Your task to perform on an android device: Search for vegetarian restaurants on Maps Image 0: 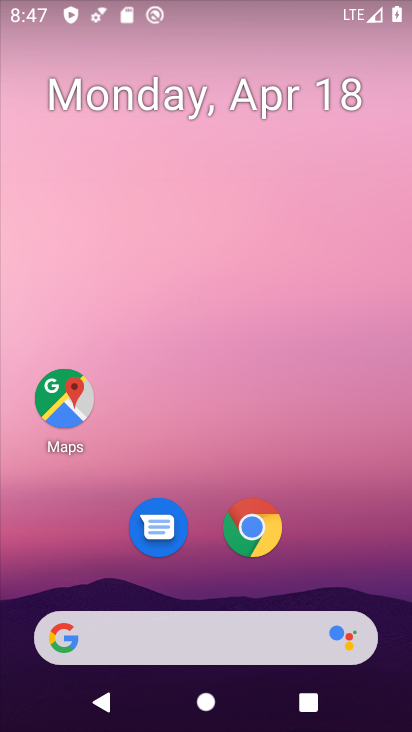
Step 0: drag from (380, 584) to (312, 34)
Your task to perform on an android device: Search for vegetarian restaurants on Maps Image 1: 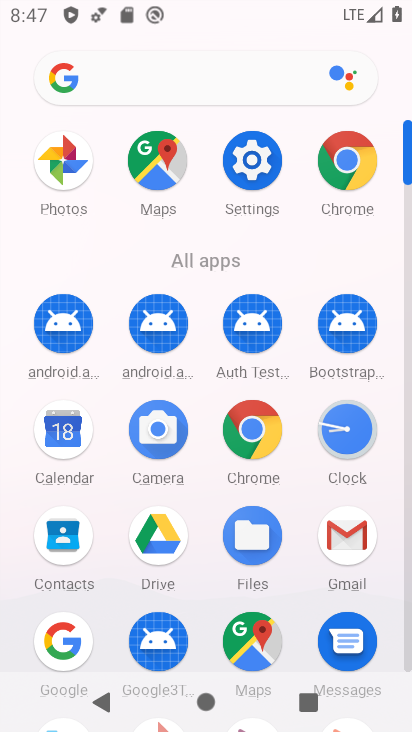
Step 1: click (248, 637)
Your task to perform on an android device: Search for vegetarian restaurants on Maps Image 2: 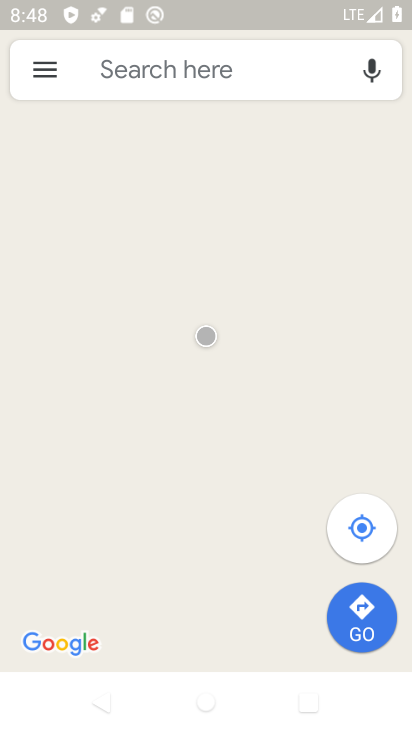
Step 2: click (271, 75)
Your task to perform on an android device: Search for vegetarian restaurants on Maps Image 3: 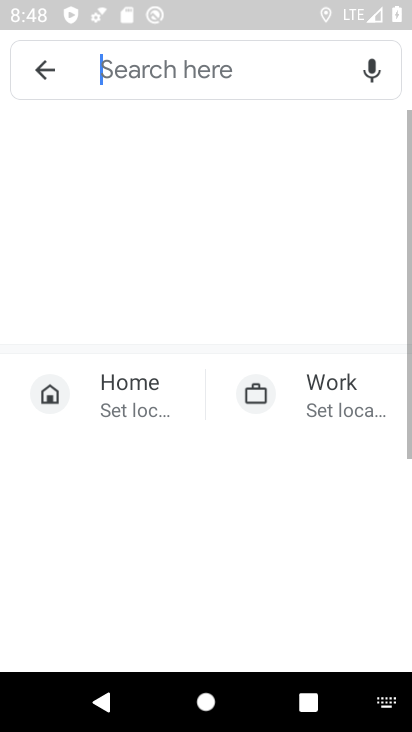
Step 3: type " vegetarian restaurants "
Your task to perform on an android device: Search for vegetarian restaurants on Maps Image 4: 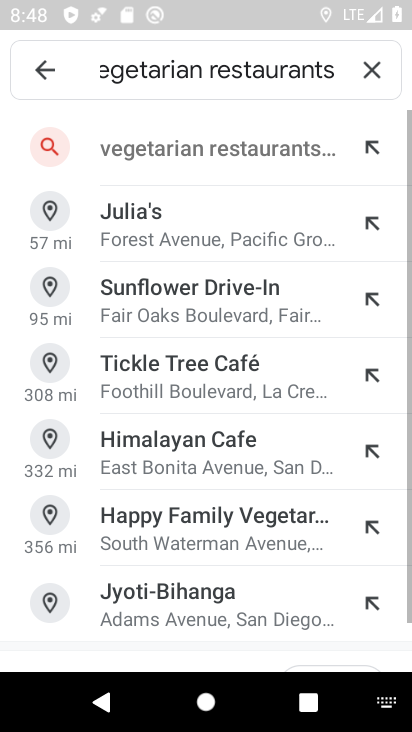
Step 4: click (204, 166)
Your task to perform on an android device: Search for vegetarian restaurants on Maps Image 5: 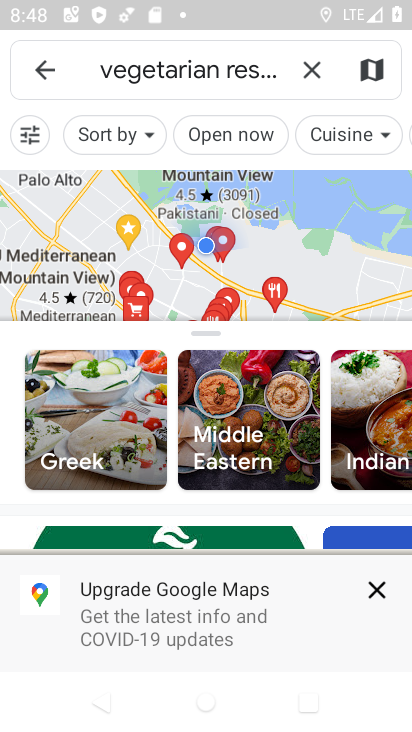
Step 5: task complete